Your task to perform on an android device: What's the weather? Image 0: 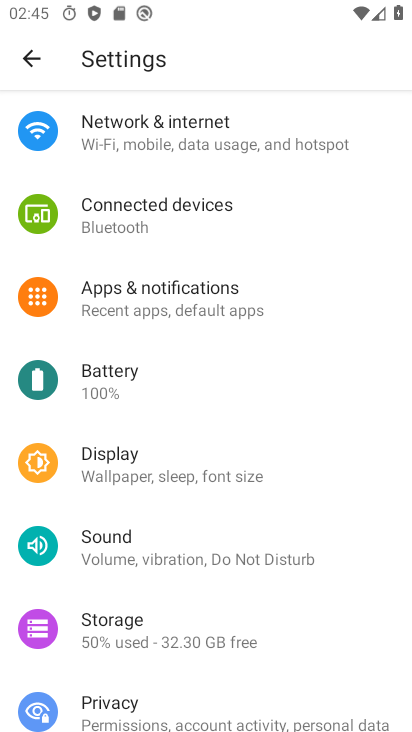
Step 0: press home button
Your task to perform on an android device: What's the weather? Image 1: 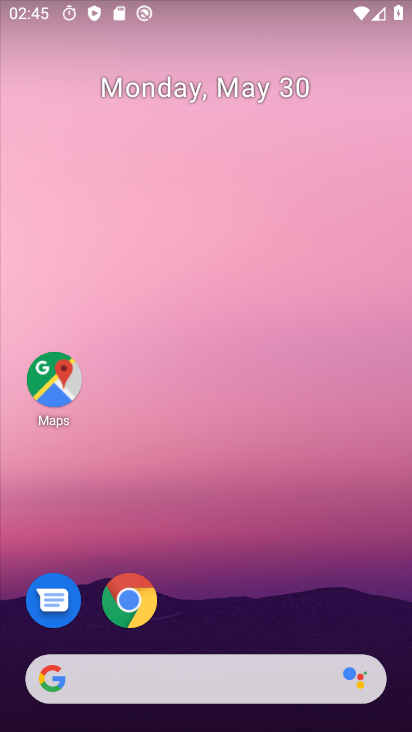
Step 1: click (210, 665)
Your task to perform on an android device: What's the weather? Image 2: 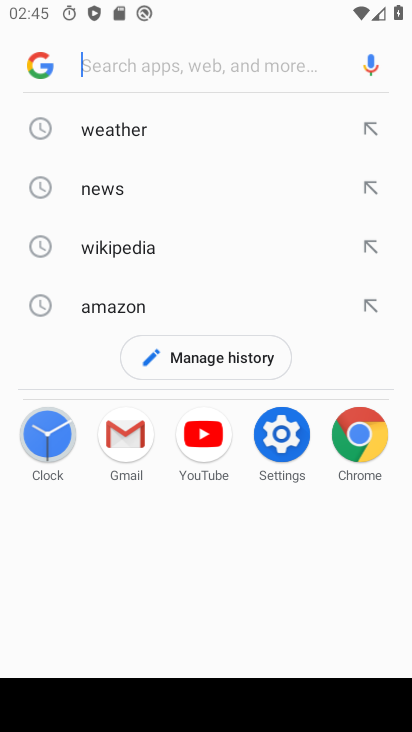
Step 2: click (140, 130)
Your task to perform on an android device: What's the weather? Image 3: 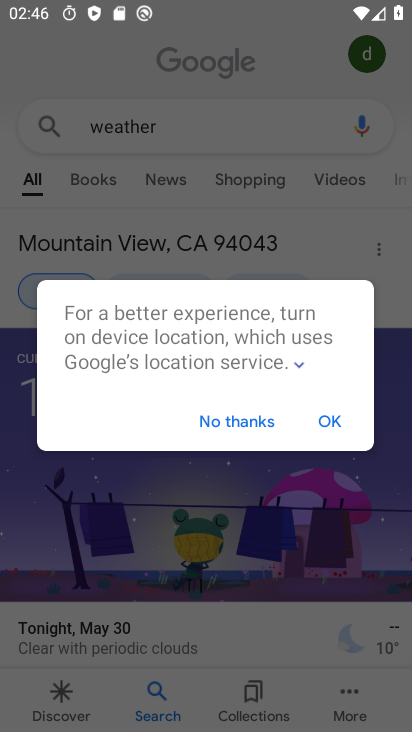
Step 3: click (336, 415)
Your task to perform on an android device: What's the weather? Image 4: 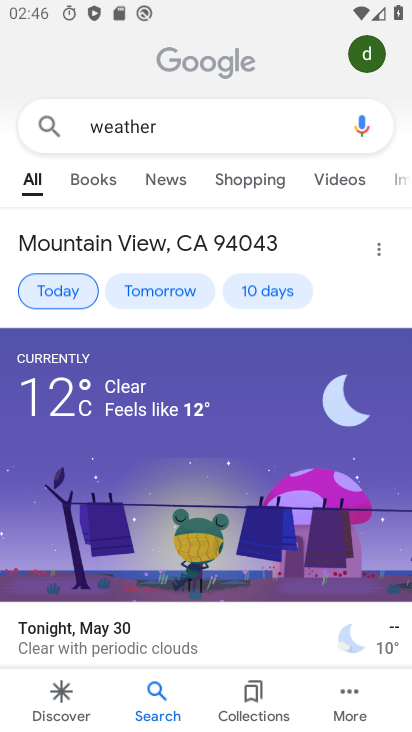
Step 4: task complete